Your task to perform on an android device: check battery use Image 0: 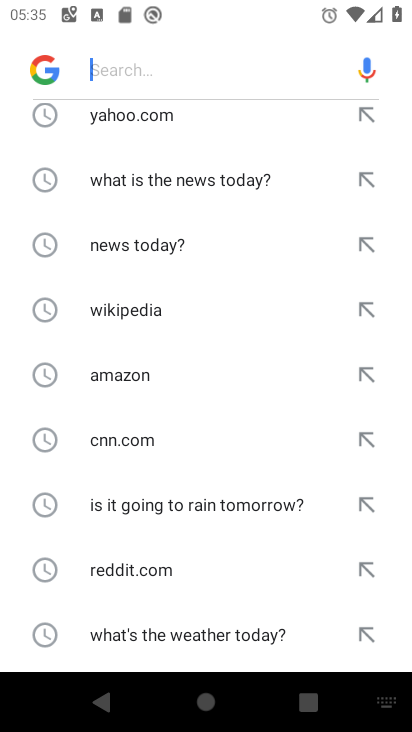
Step 0: press home button
Your task to perform on an android device: check battery use Image 1: 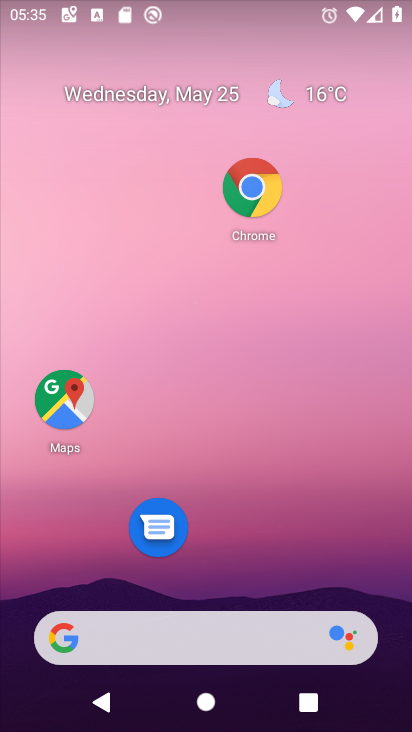
Step 1: drag from (369, 634) to (335, 40)
Your task to perform on an android device: check battery use Image 2: 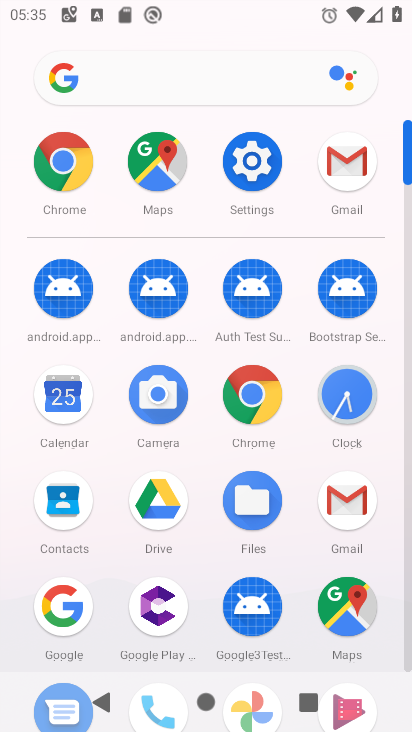
Step 2: click (266, 146)
Your task to perform on an android device: check battery use Image 3: 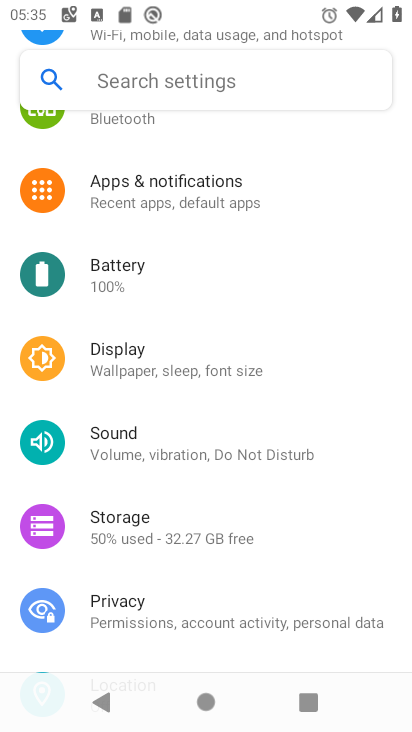
Step 3: drag from (184, 167) to (203, 556)
Your task to perform on an android device: check battery use Image 4: 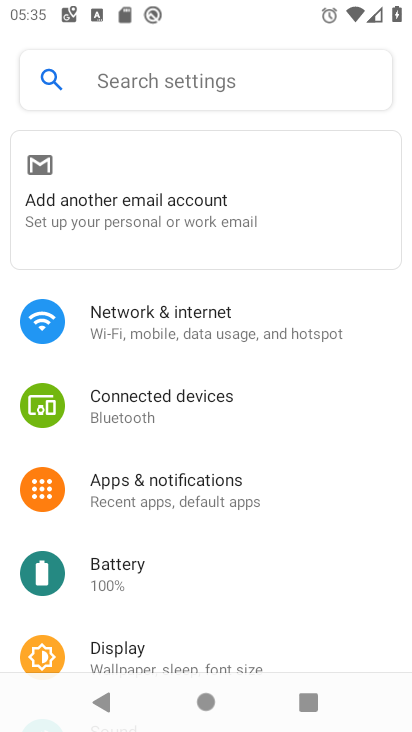
Step 4: click (167, 569)
Your task to perform on an android device: check battery use Image 5: 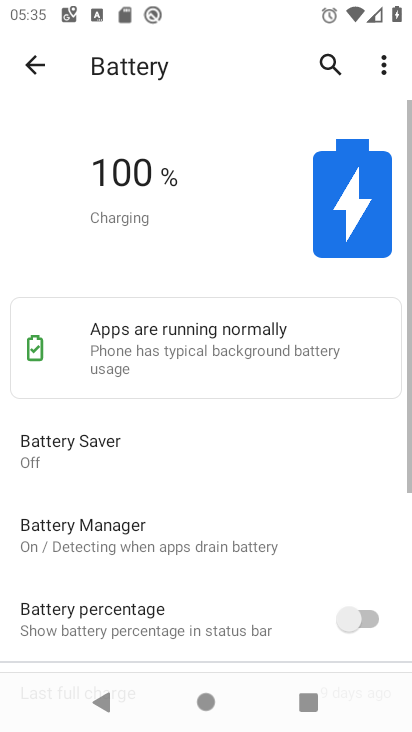
Step 5: task complete